Your task to perform on an android device: What is the recent news? Image 0: 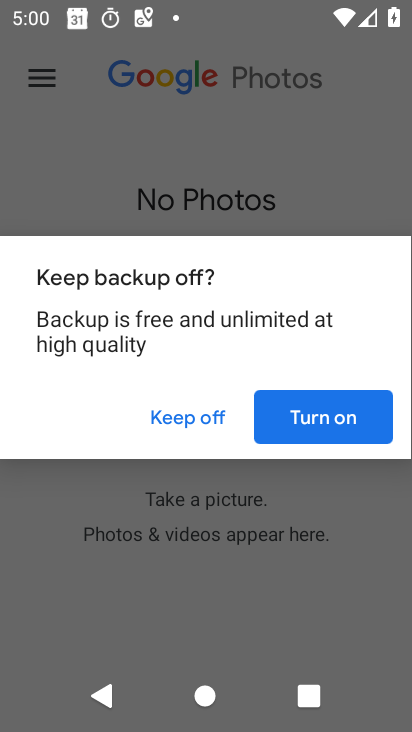
Step 0: press back button
Your task to perform on an android device: What is the recent news? Image 1: 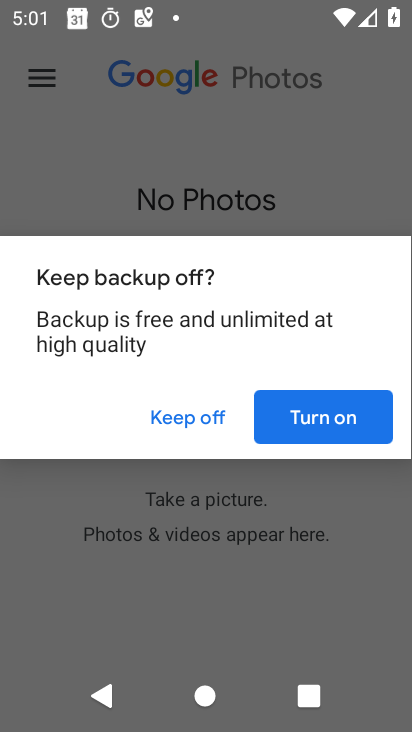
Step 1: press home button
Your task to perform on an android device: What is the recent news? Image 2: 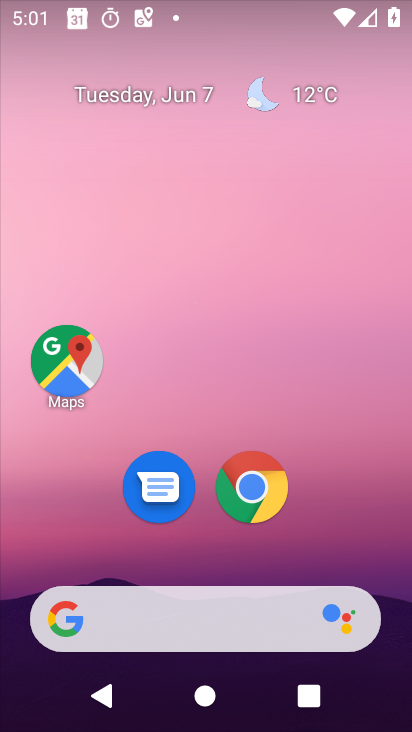
Step 2: click (181, 617)
Your task to perform on an android device: What is the recent news? Image 3: 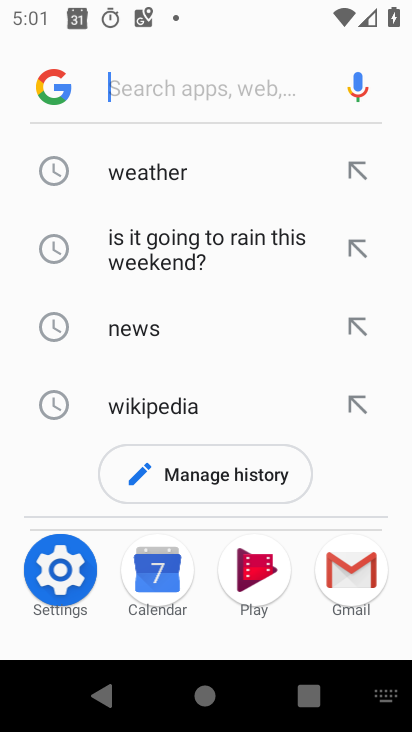
Step 3: click (132, 80)
Your task to perform on an android device: What is the recent news? Image 4: 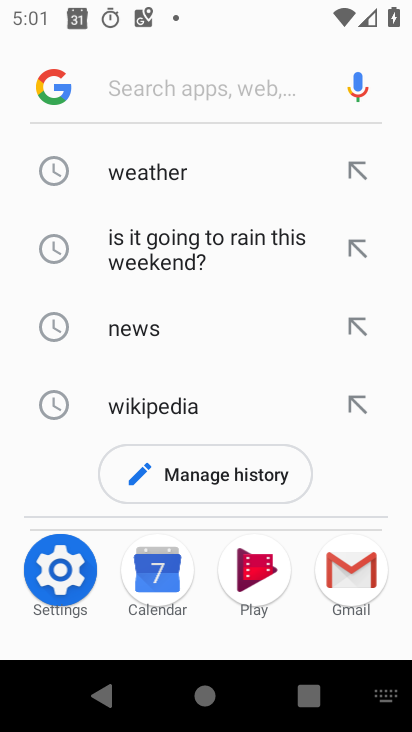
Step 4: type "recent news"
Your task to perform on an android device: What is the recent news? Image 5: 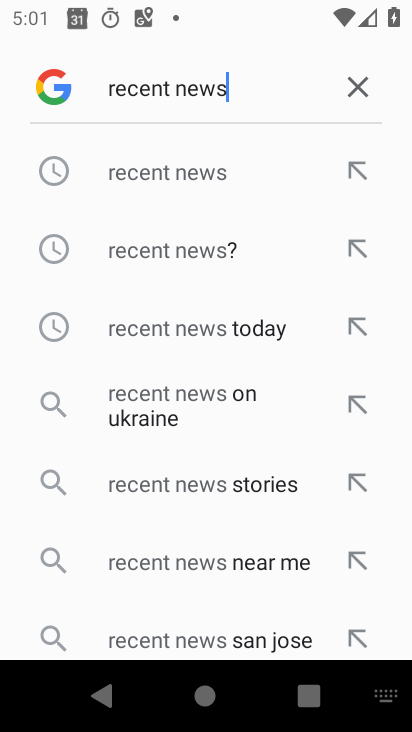
Step 5: click (188, 175)
Your task to perform on an android device: What is the recent news? Image 6: 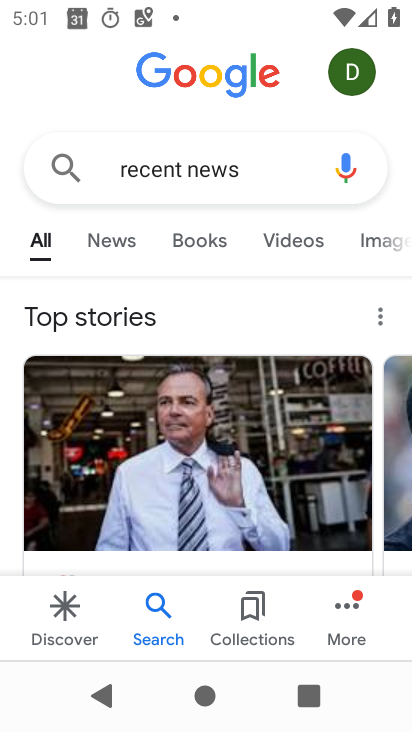
Step 6: task complete